Your task to perform on an android device: search for starred emails in the gmail app Image 0: 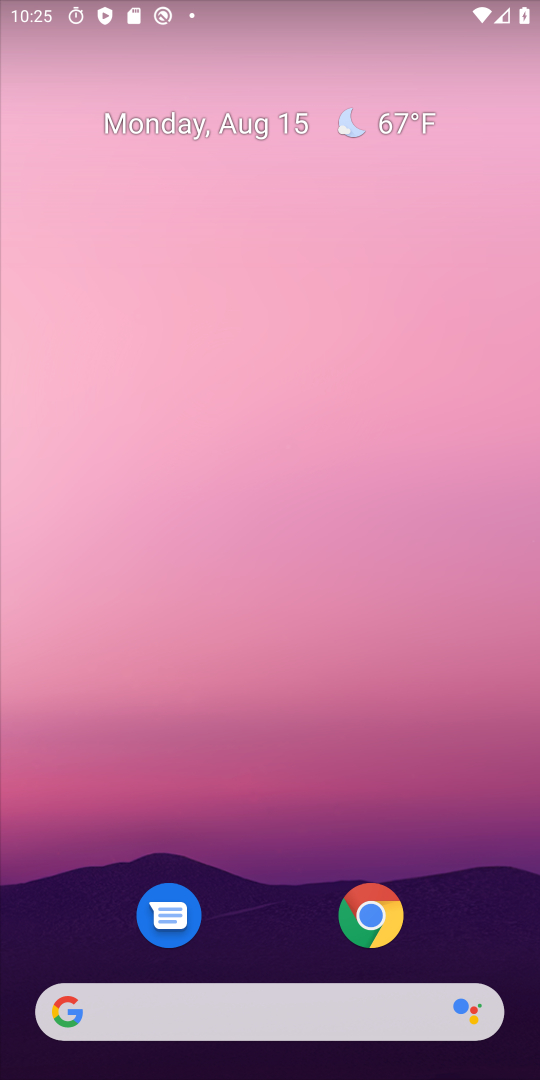
Step 0: drag from (453, 890) to (352, 174)
Your task to perform on an android device: search for starred emails in the gmail app Image 1: 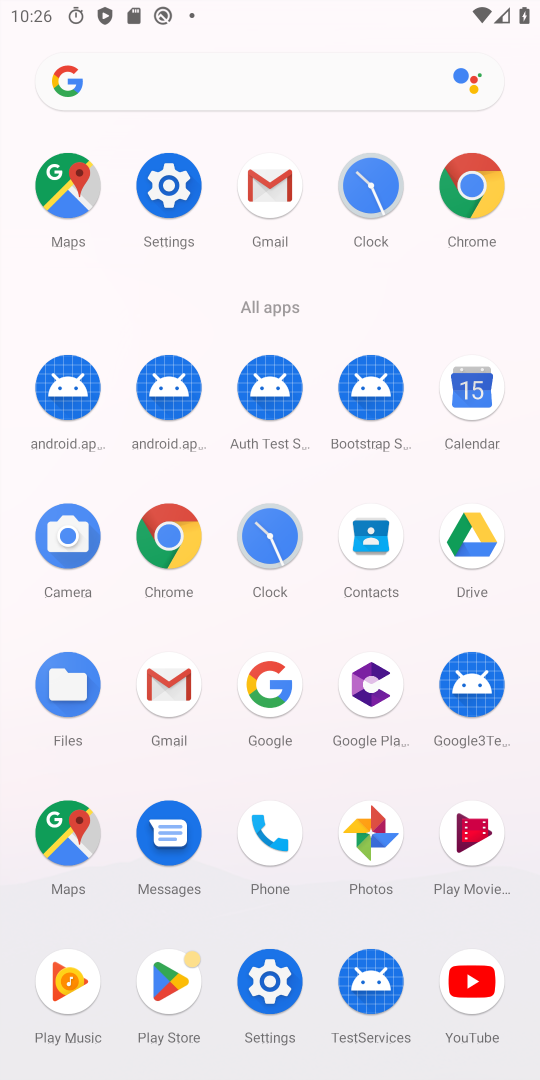
Step 1: click (171, 698)
Your task to perform on an android device: search for starred emails in the gmail app Image 2: 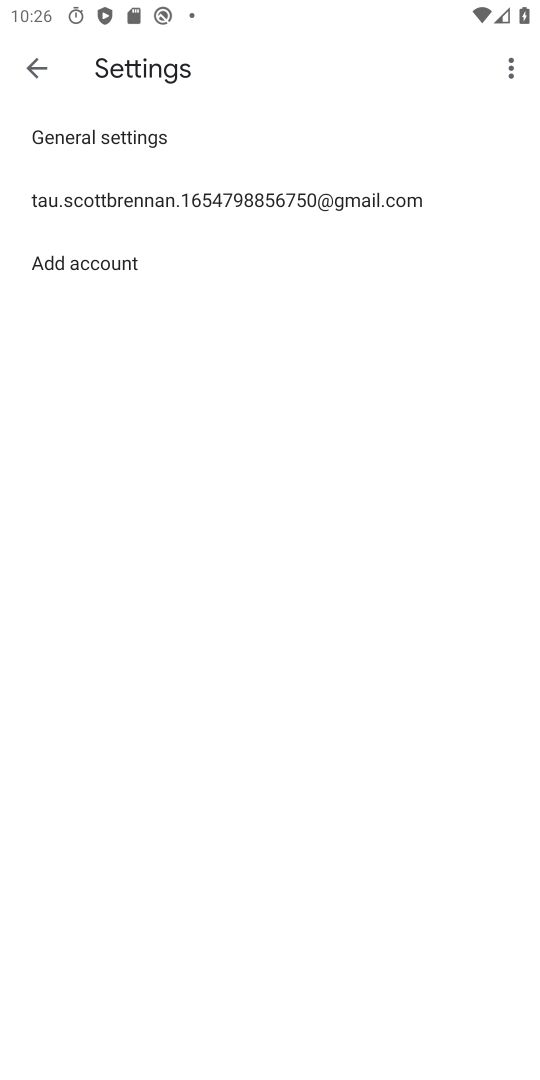
Step 2: click (198, 196)
Your task to perform on an android device: search for starred emails in the gmail app Image 3: 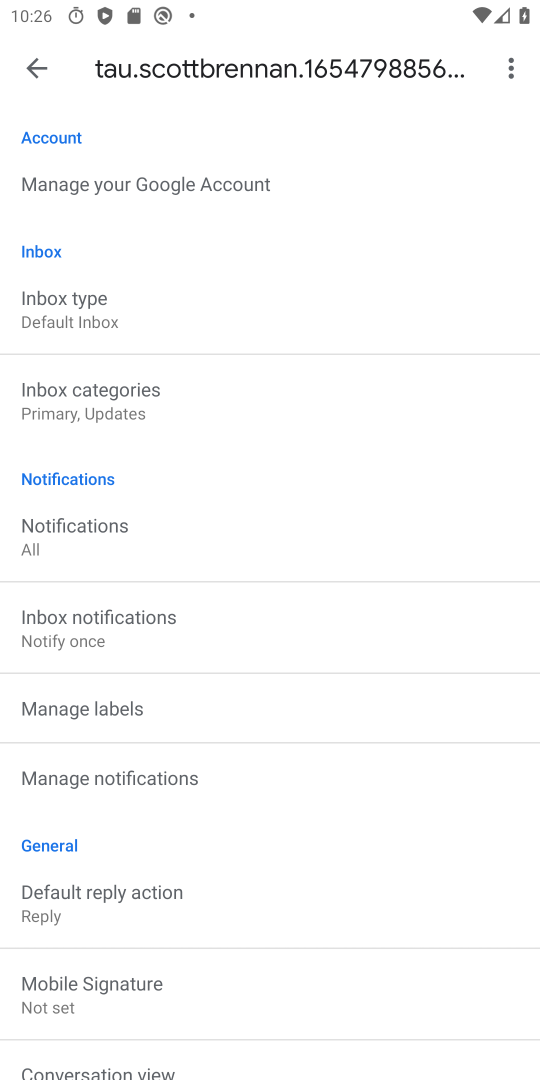
Step 3: click (42, 69)
Your task to perform on an android device: search for starred emails in the gmail app Image 4: 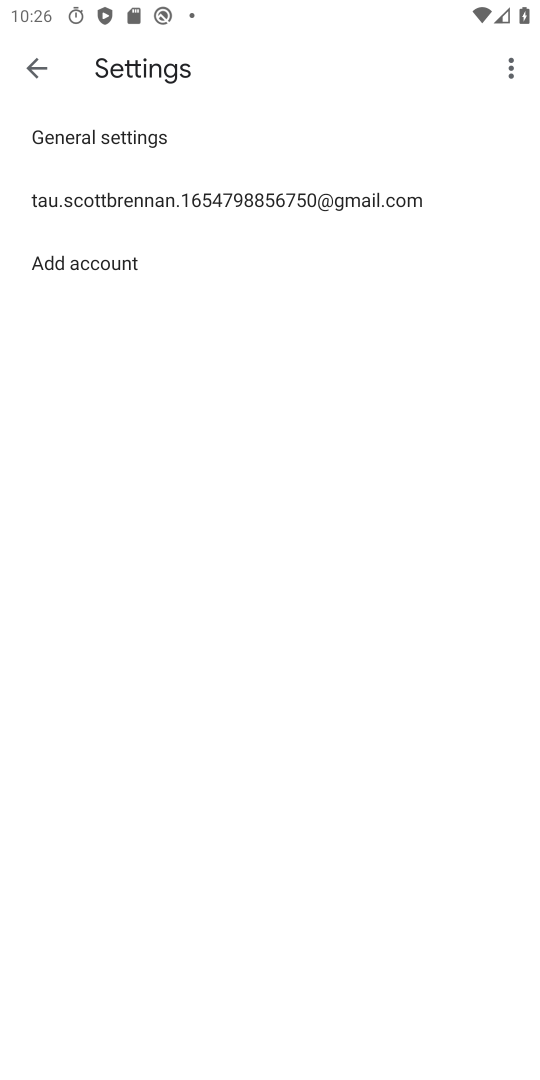
Step 4: click (42, 69)
Your task to perform on an android device: search for starred emails in the gmail app Image 5: 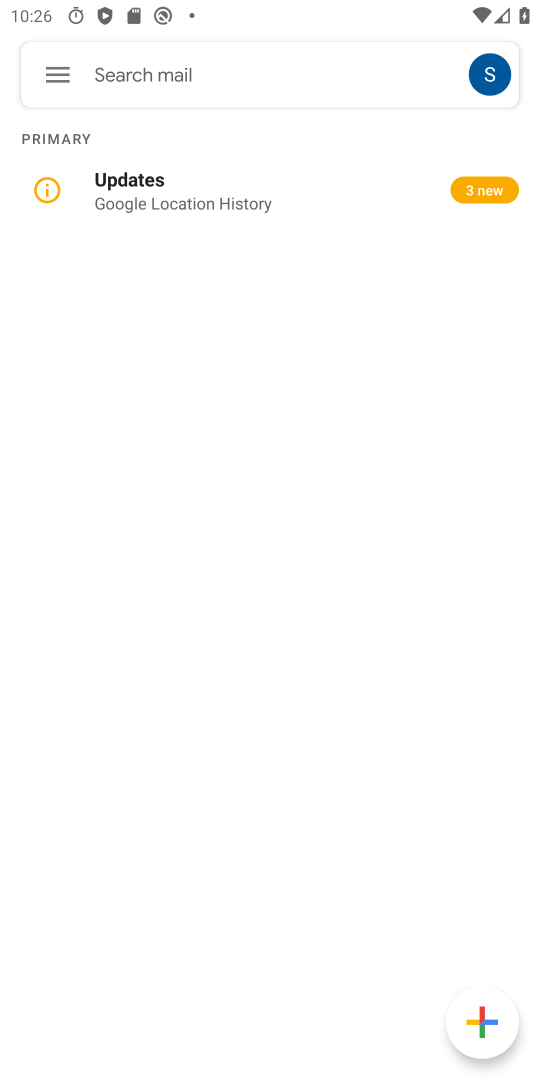
Step 5: click (42, 69)
Your task to perform on an android device: search for starred emails in the gmail app Image 6: 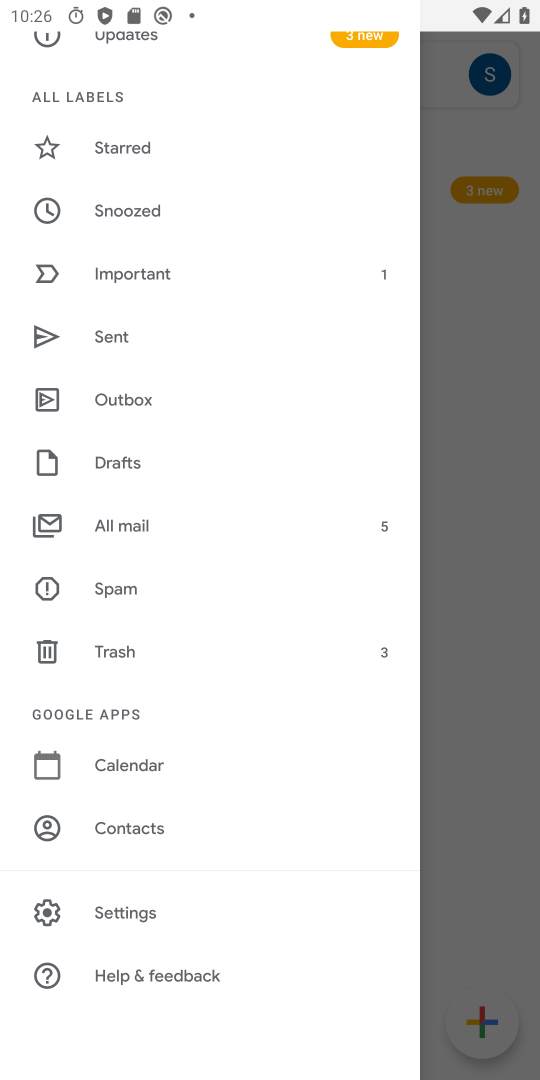
Step 6: click (130, 150)
Your task to perform on an android device: search for starred emails in the gmail app Image 7: 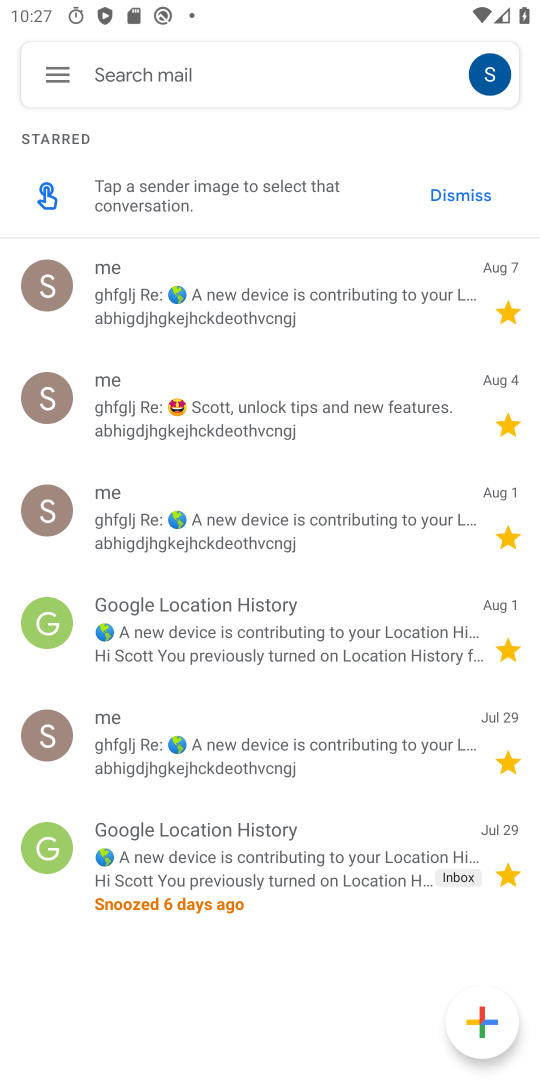
Step 7: task complete